Your task to perform on an android device: turn on priority inbox in the gmail app Image 0: 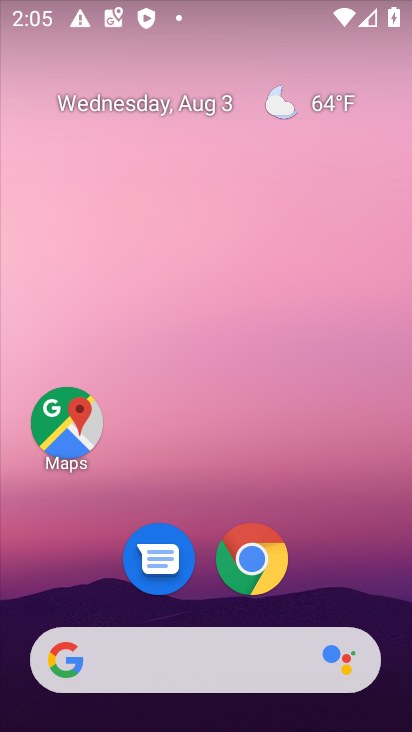
Step 0: click (229, 80)
Your task to perform on an android device: turn on priority inbox in the gmail app Image 1: 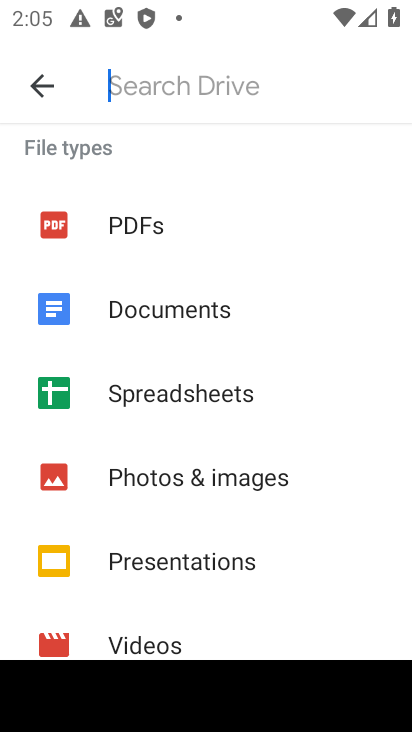
Step 1: press home button
Your task to perform on an android device: turn on priority inbox in the gmail app Image 2: 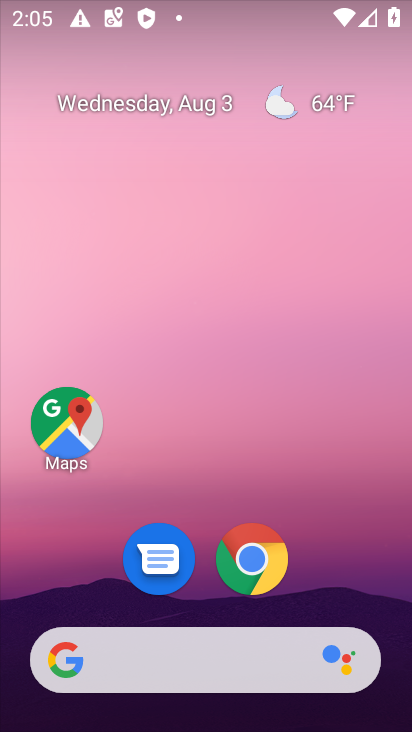
Step 2: drag from (204, 600) to (204, 115)
Your task to perform on an android device: turn on priority inbox in the gmail app Image 3: 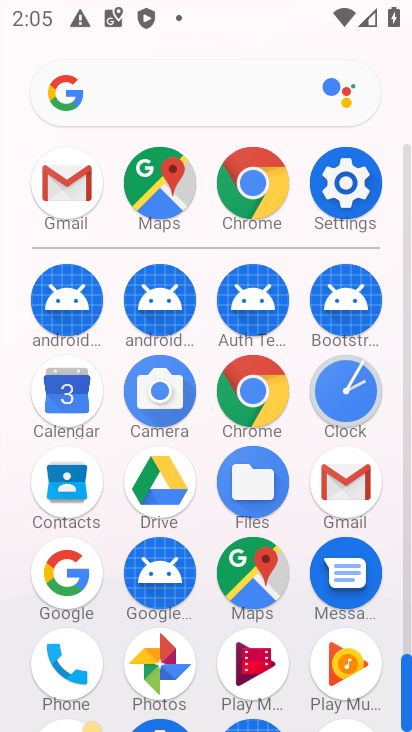
Step 3: click (343, 480)
Your task to perform on an android device: turn on priority inbox in the gmail app Image 4: 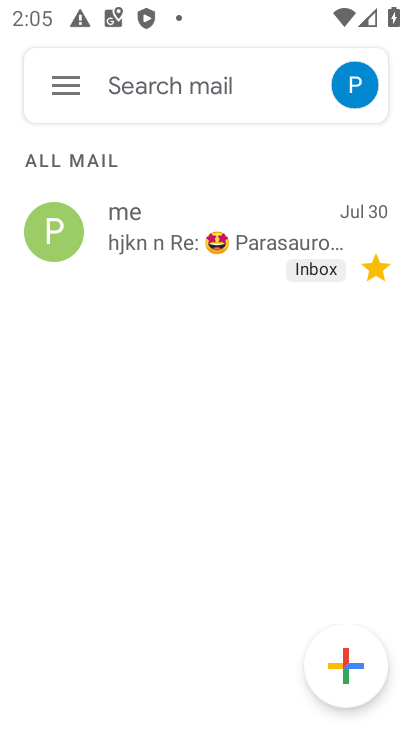
Step 4: click (67, 86)
Your task to perform on an android device: turn on priority inbox in the gmail app Image 5: 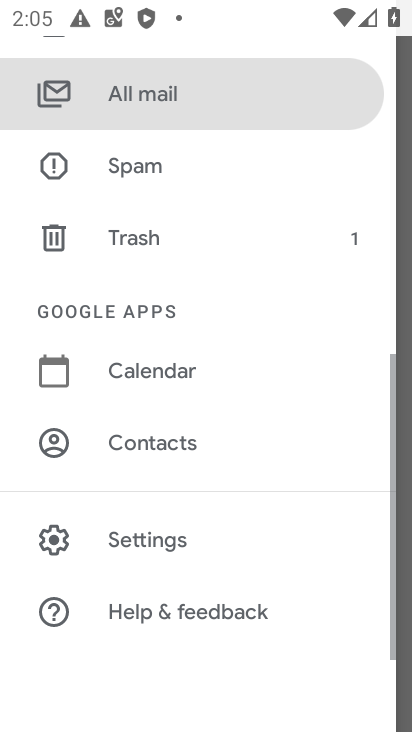
Step 5: click (155, 531)
Your task to perform on an android device: turn on priority inbox in the gmail app Image 6: 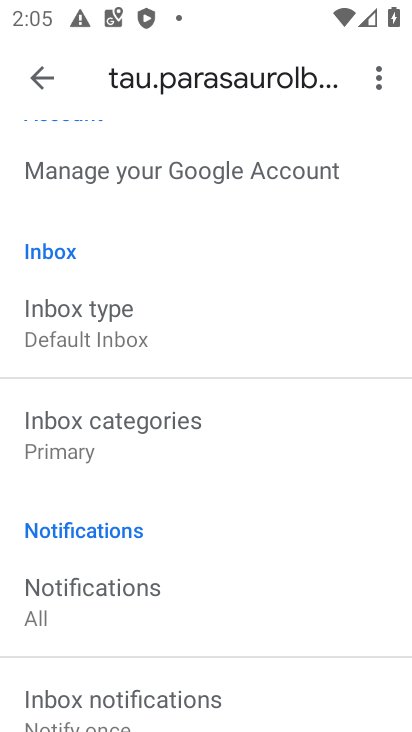
Step 6: click (101, 327)
Your task to perform on an android device: turn on priority inbox in the gmail app Image 7: 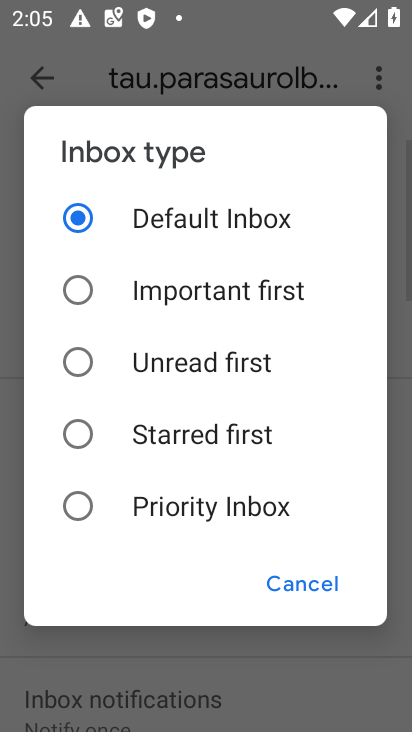
Step 7: click (75, 501)
Your task to perform on an android device: turn on priority inbox in the gmail app Image 8: 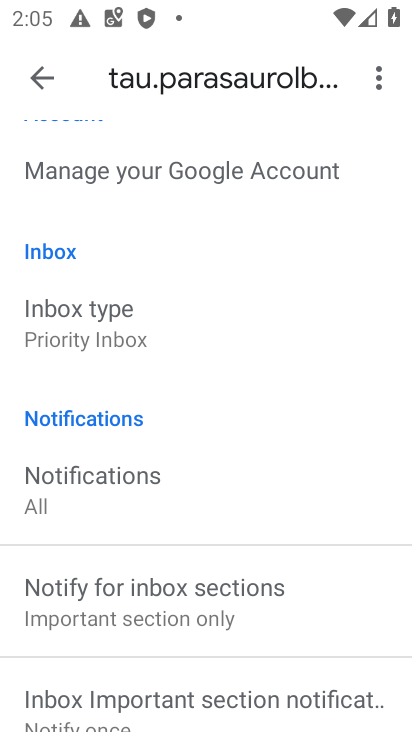
Step 8: task complete